Your task to perform on an android device: Go to network settings Image 0: 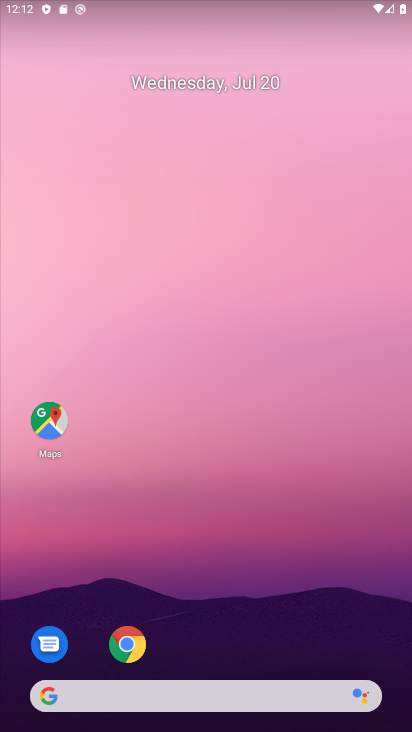
Step 0: drag from (263, 579) to (215, 64)
Your task to perform on an android device: Go to network settings Image 1: 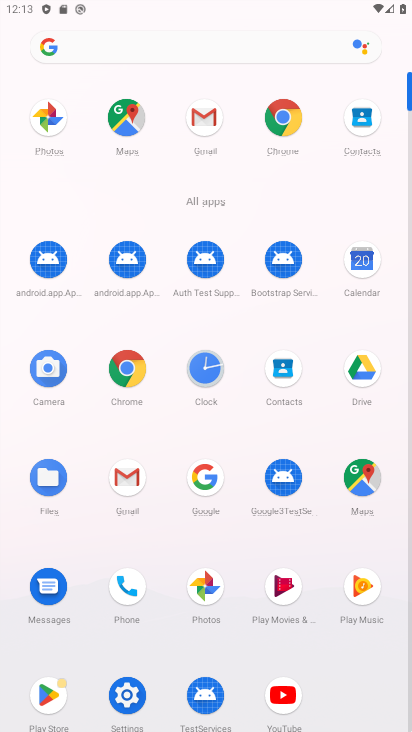
Step 1: click (120, 690)
Your task to perform on an android device: Go to network settings Image 2: 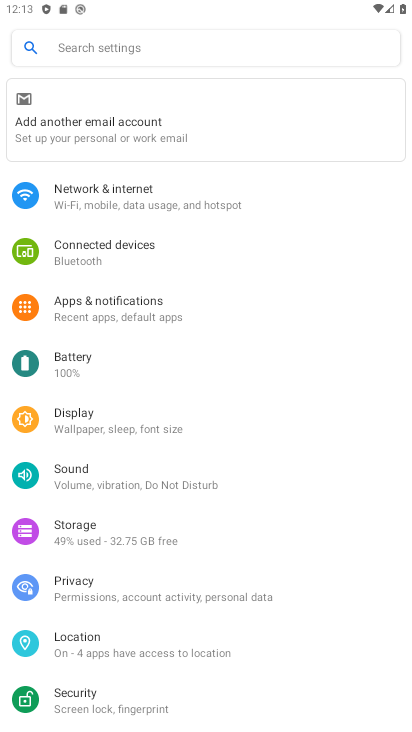
Step 2: click (112, 203)
Your task to perform on an android device: Go to network settings Image 3: 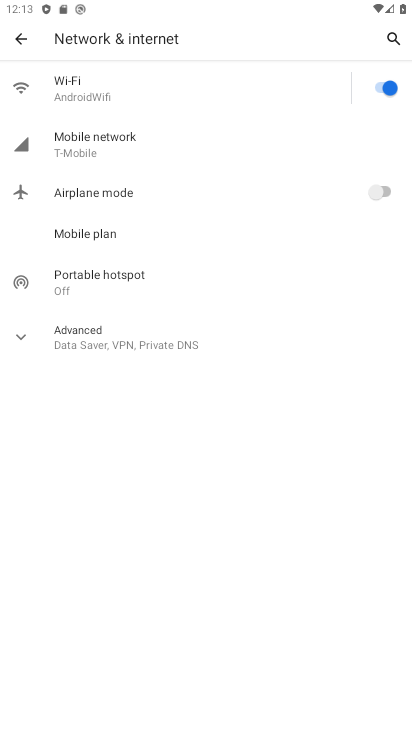
Step 3: task complete